Your task to perform on an android device: turn off data saver in the chrome app Image 0: 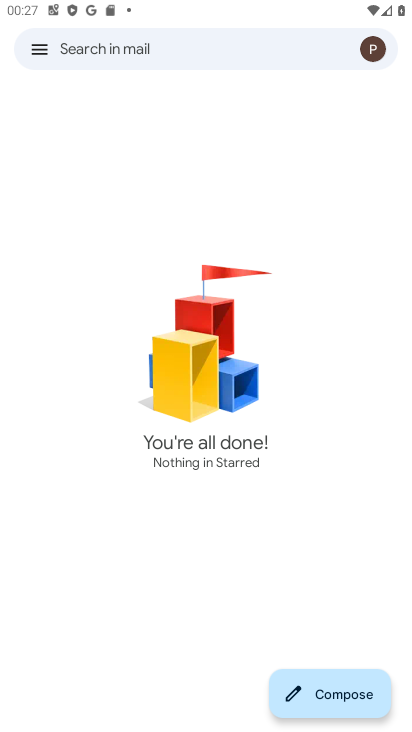
Step 0: press home button
Your task to perform on an android device: turn off data saver in the chrome app Image 1: 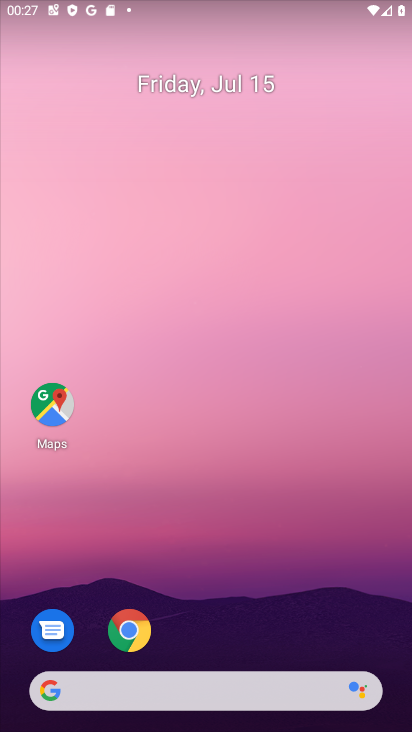
Step 1: click (146, 633)
Your task to perform on an android device: turn off data saver in the chrome app Image 2: 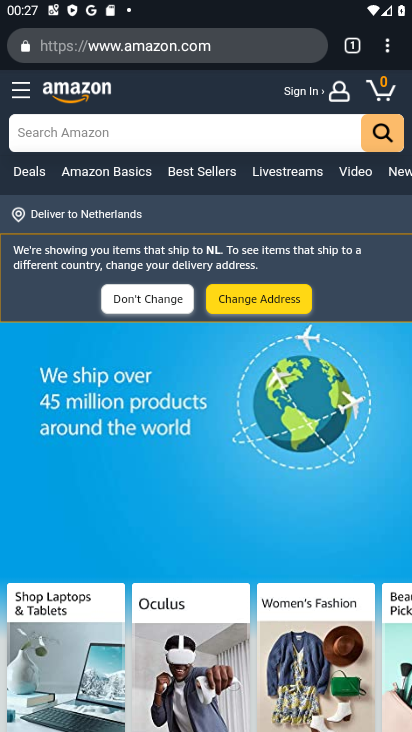
Step 2: click (393, 46)
Your task to perform on an android device: turn off data saver in the chrome app Image 3: 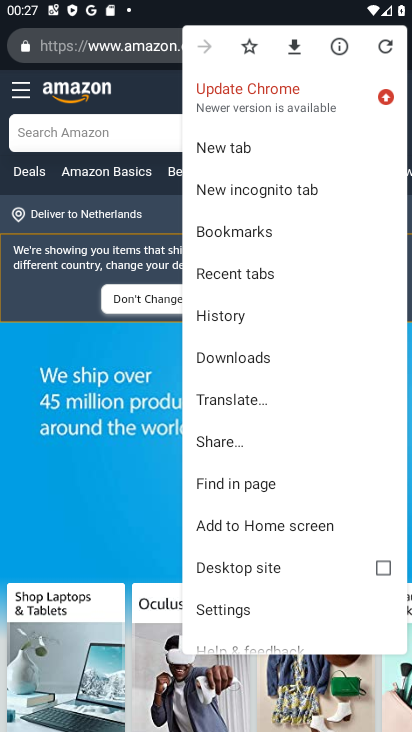
Step 3: click (227, 609)
Your task to perform on an android device: turn off data saver in the chrome app Image 4: 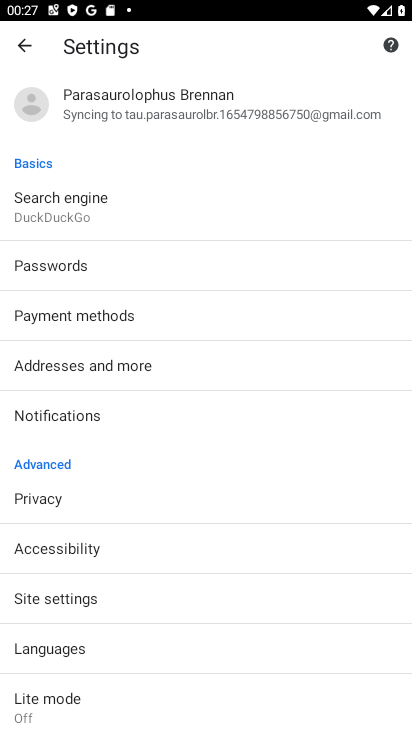
Step 4: click (96, 684)
Your task to perform on an android device: turn off data saver in the chrome app Image 5: 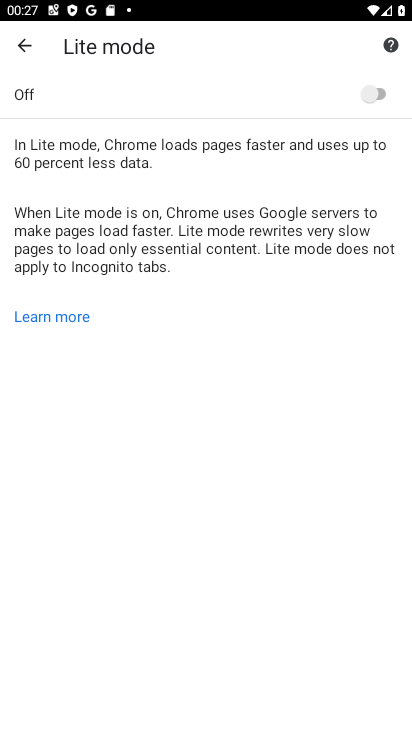
Step 5: task complete